Your task to perform on an android device: Open settings Image 0: 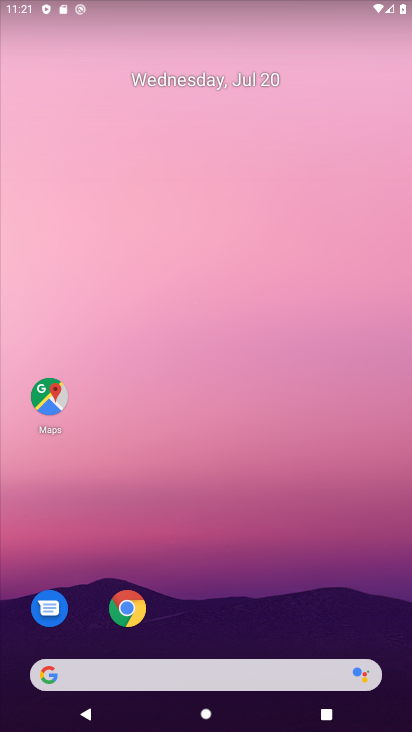
Step 0: drag from (385, 625) to (244, 35)
Your task to perform on an android device: Open settings Image 1: 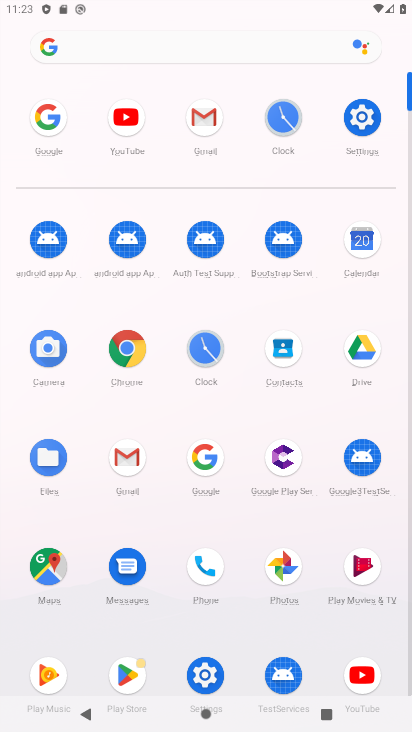
Step 1: click (196, 677)
Your task to perform on an android device: Open settings Image 2: 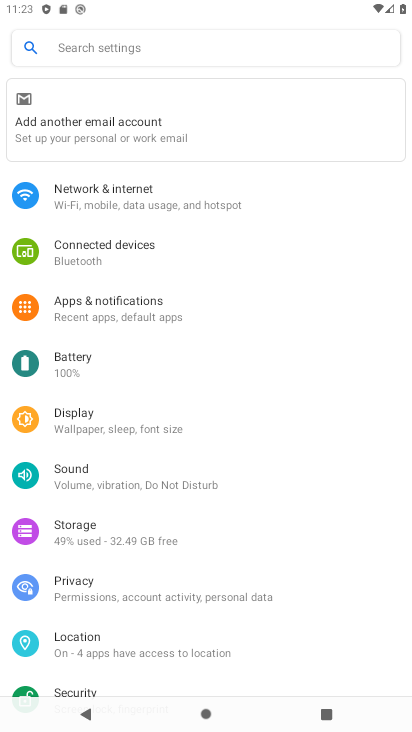
Step 2: task complete